Your task to perform on an android device: Open display settings Image 0: 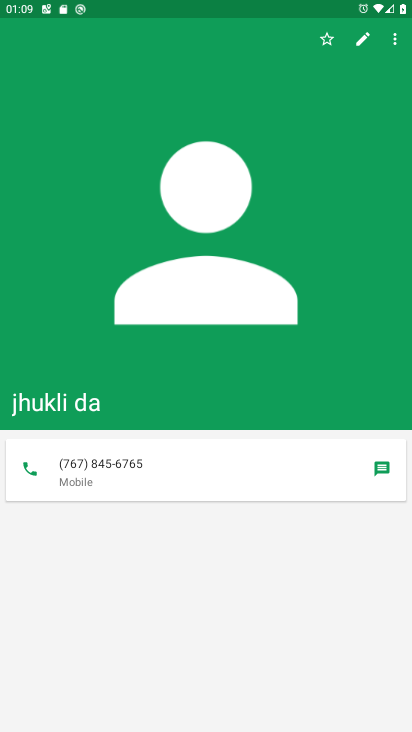
Step 0: press home button
Your task to perform on an android device: Open display settings Image 1: 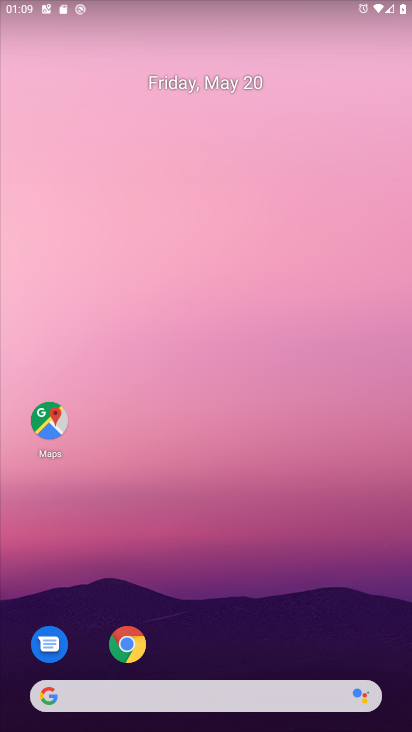
Step 1: drag from (163, 675) to (166, 261)
Your task to perform on an android device: Open display settings Image 2: 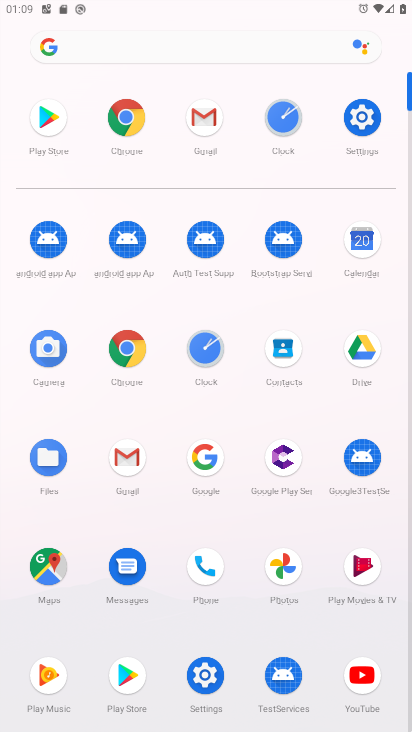
Step 2: click (363, 124)
Your task to perform on an android device: Open display settings Image 3: 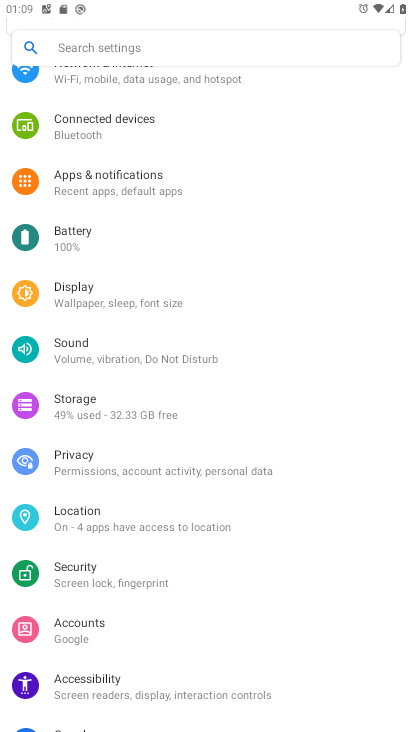
Step 3: click (114, 287)
Your task to perform on an android device: Open display settings Image 4: 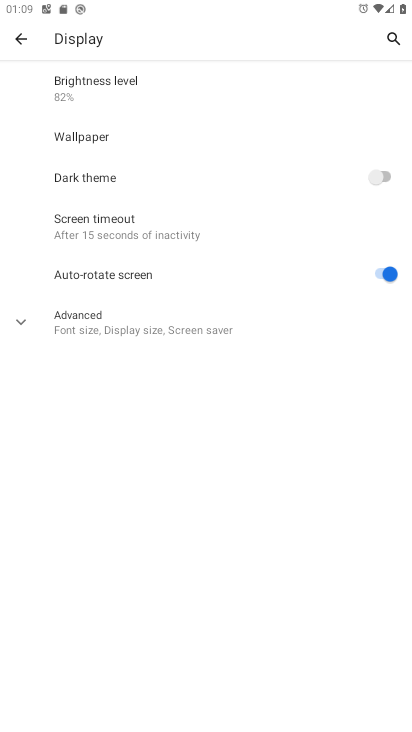
Step 4: click (94, 319)
Your task to perform on an android device: Open display settings Image 5: 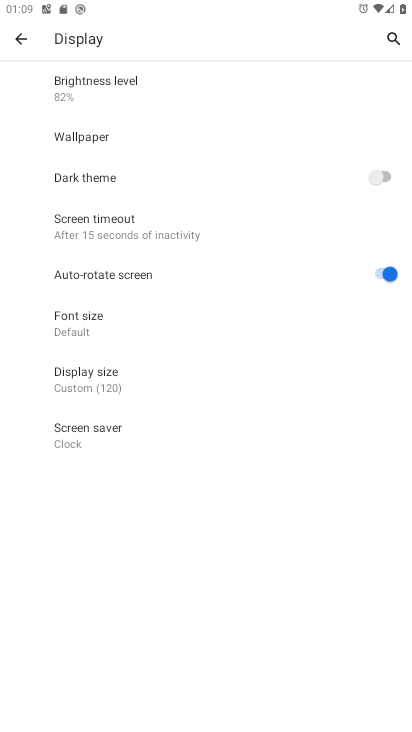
Step 5: task complete